Your task to perform on an android device: Open internet settings Image 0: 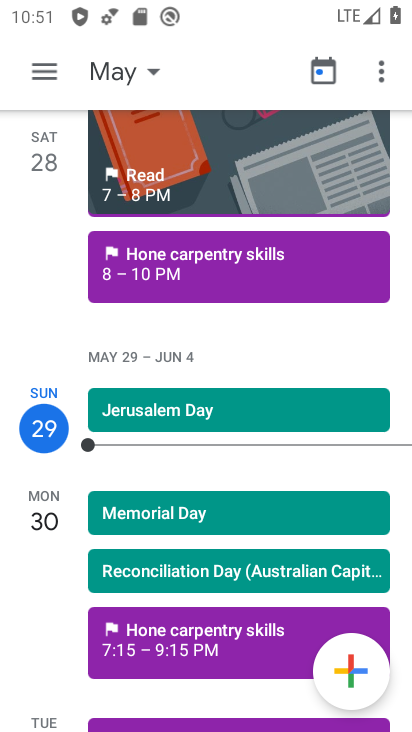
Step 0: press home button
Your task to perform on an android device: Open internet settings Image 1: 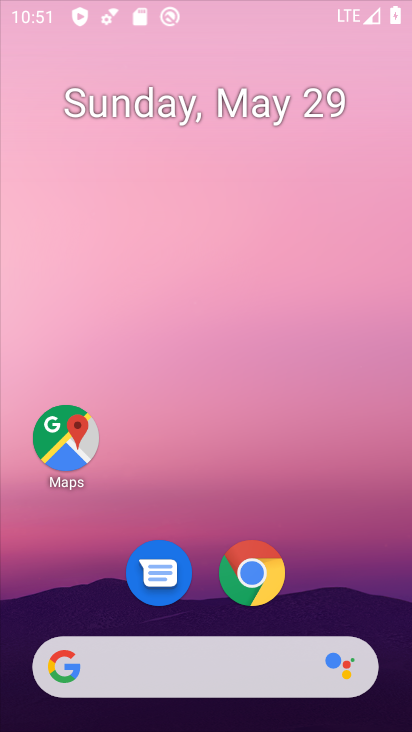
Step 1: drag from (312, 418) to (206, 18)
Your task to perform on an android device: Open internet settings Image 2: 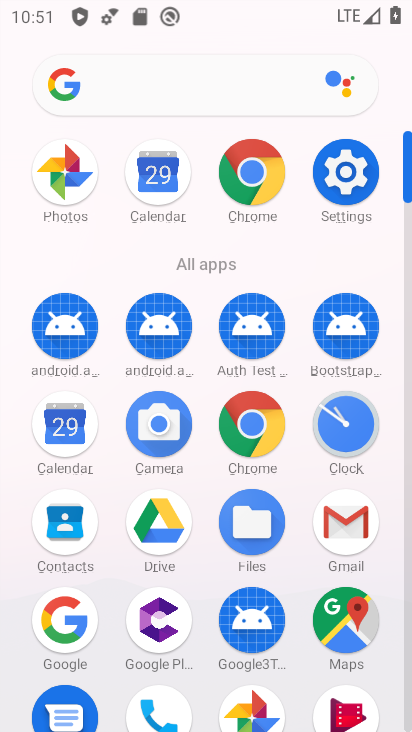
Step 2: click (343, 190)
Your task to perform on an android device: Open internet settings Image 3: 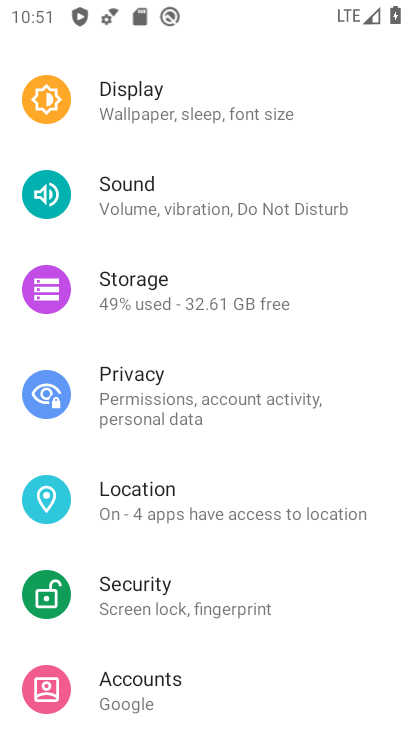
Step 3: drag from (238, 168) to (217, 591)
Your task to perform on an android device: Open internet settings Image 4: 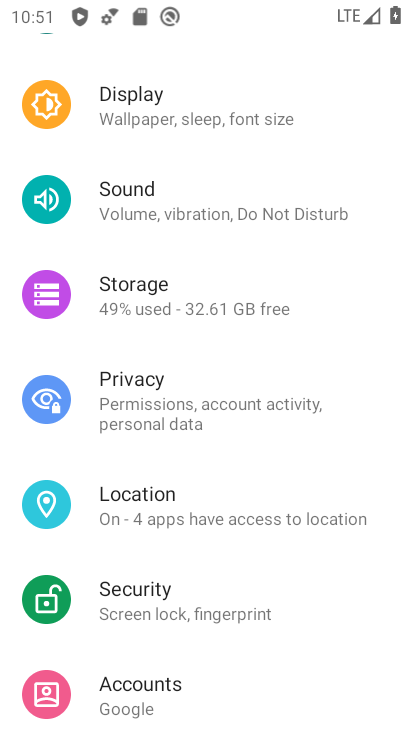
Step 4: drag from (214, 186) to (220, 600)
Your task to perform on an android device: Open internet settings Image 5: 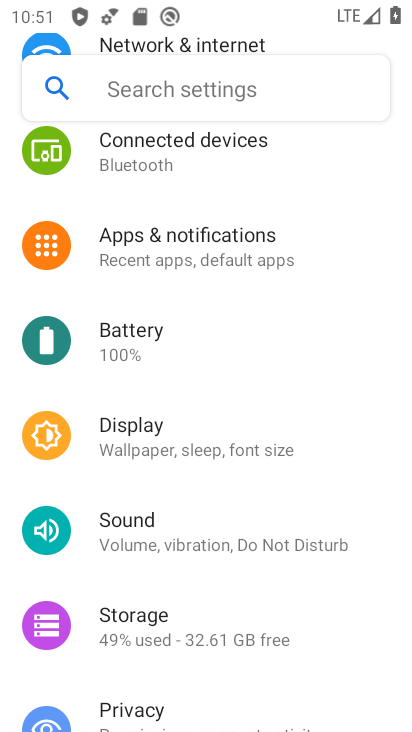
Step 5: drag from (221, 151) to (234, 698)
Your task to perform on an android device: Open internet settings Image 6: 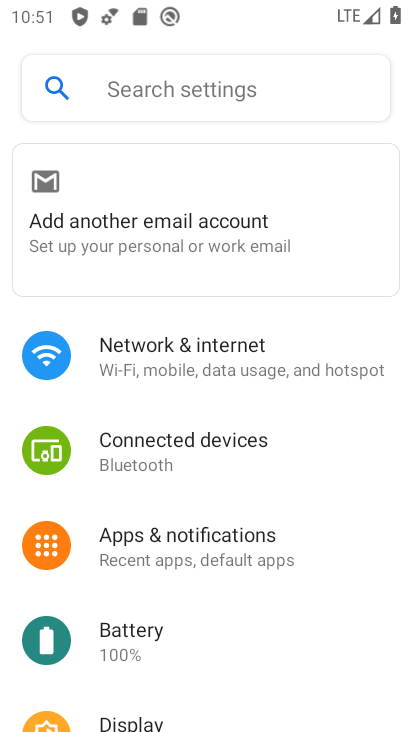
Step 6: click (166, 358)
Your task to perform on an android device: Open internet settings Image 7: 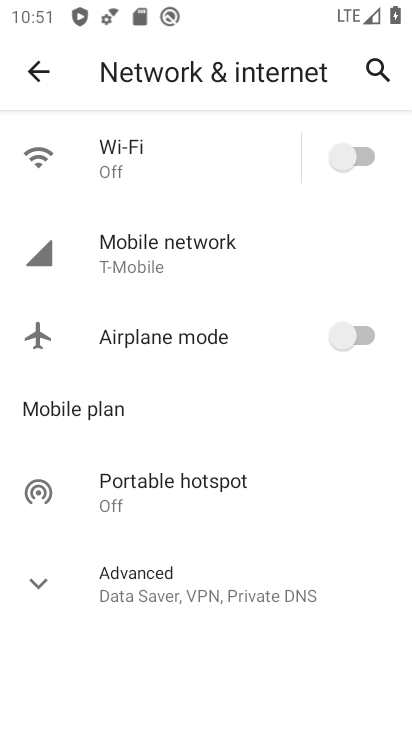
Step 7: task complete